Your task to perform on an android device: Open notification settings Image 0: 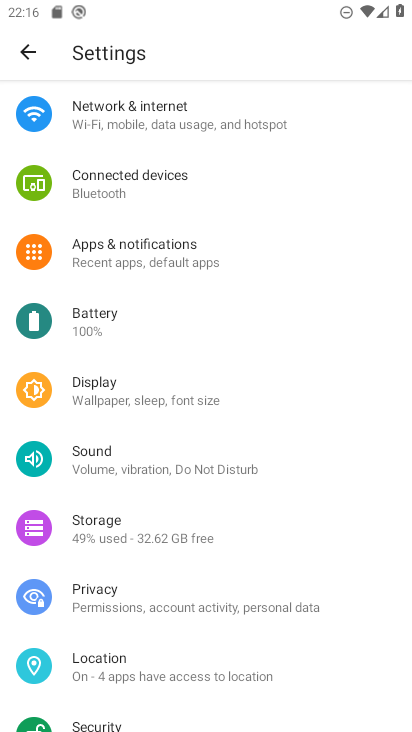
Step 0: click (97, 257)
Your task to perform on an android device: Open notification settings Image 1: 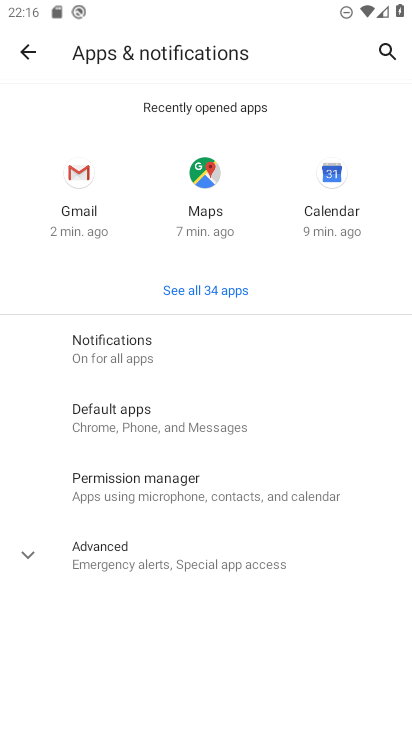
Step 1: click (128, 330)
Your task to perform on an android device: Open notification settings Image 2: 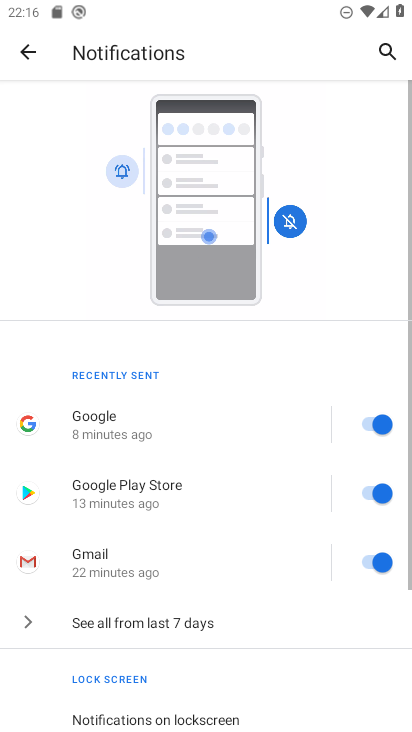
Step 2: task complete